Your task to perform on an android device: Turn off the flashlight Image 0: 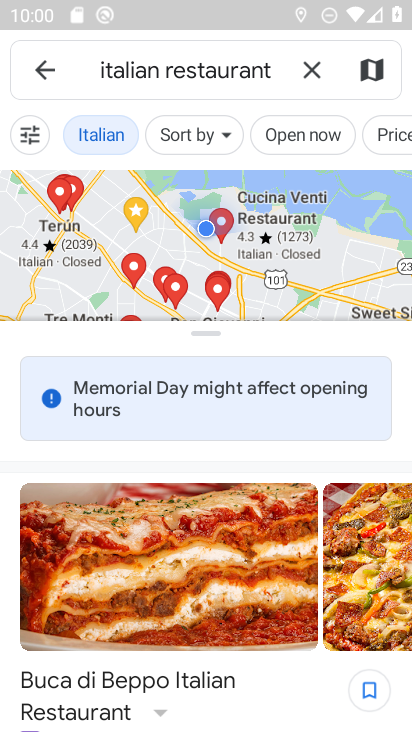
Step 0: press home button
Your task to perform on an android device: Turn off the flashlight Image 1: 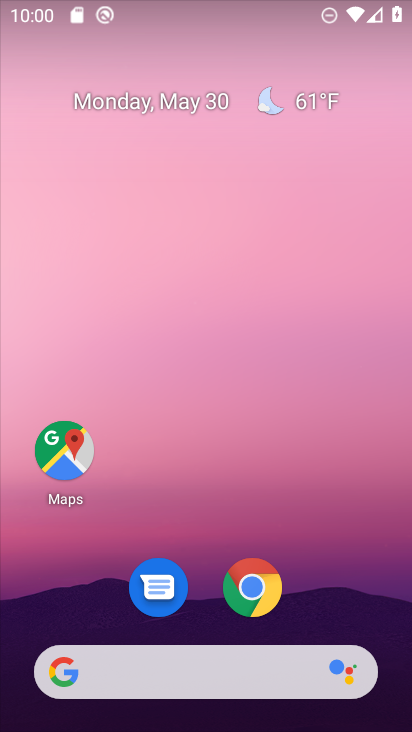
Step 1: drag from (218, 626) to (129, 25)
Your task to perform on an android device: Turn off the flashlight Image 2: 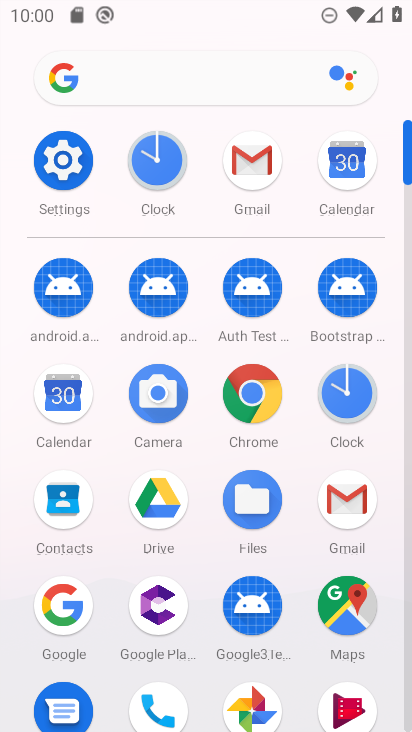
Step 2: click (57, 185)
Your task to perform on an android device: Turn off the flashlight Image 3: 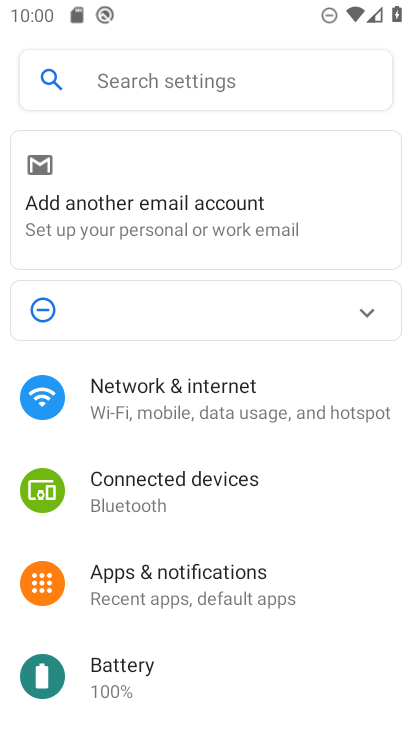
Step 3: drag from (161, 602) to (146, 244)
Your task to perform on an android device: Turn off the flashlight Image 4: 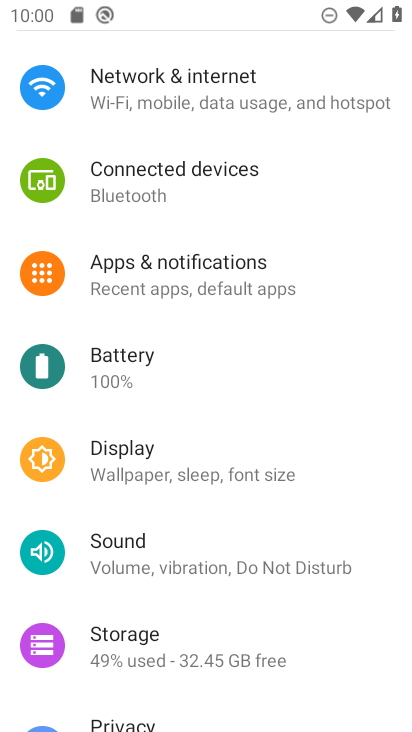
Step 4: drag from (183, 551) to (182, 369)
Your task to perform on an android device: Turn off the flashlight Image 5: 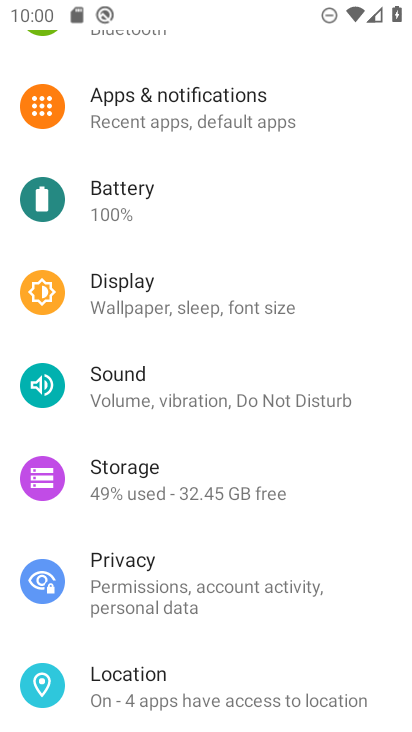
Step 5: click (171, 326)
Your task to perform on an android device: Turn off the flashlight Image 6: 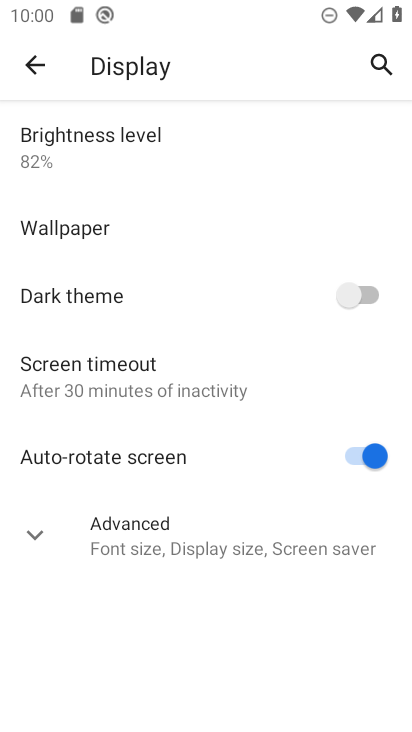
Step 6: task complete